Your task to perform on an android device: change your default location settings in chrome Image 0: 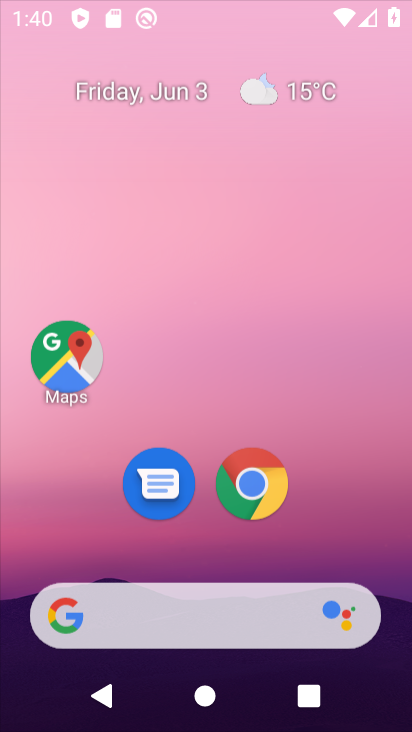
Step 0: press home button
Your task to perform on an android device: change your default location settings in chrome Image 1: 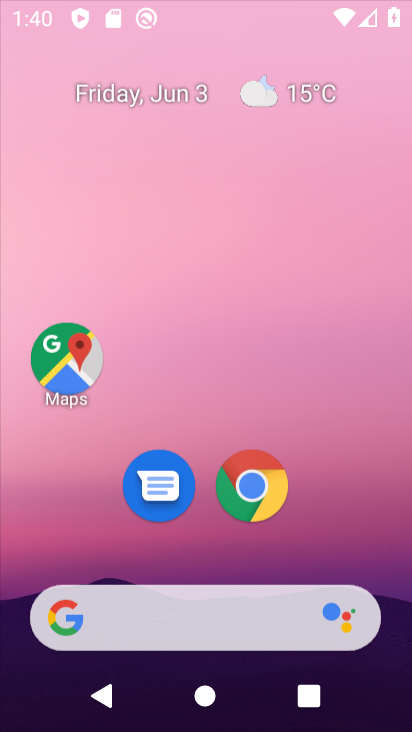
Step 1: drag from (203, 89) to (147, 55)
Your task to perform on an android device: change your default location settings in chrome Image 2: 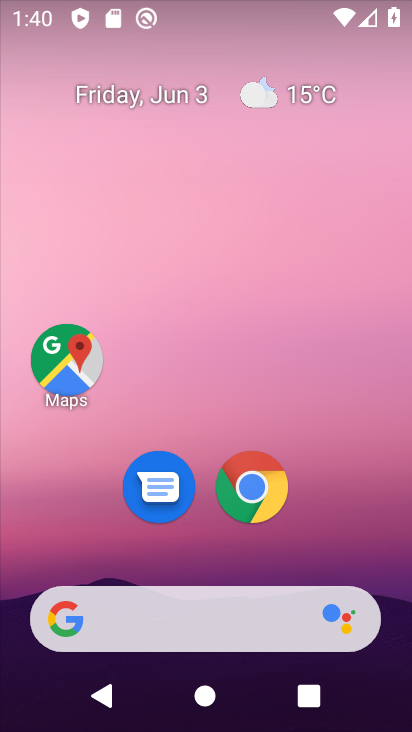
Step 2: drag from (366, 572) to (178, 10)
Your task to perform on an android device: change your default location settings in chrome Image 3: 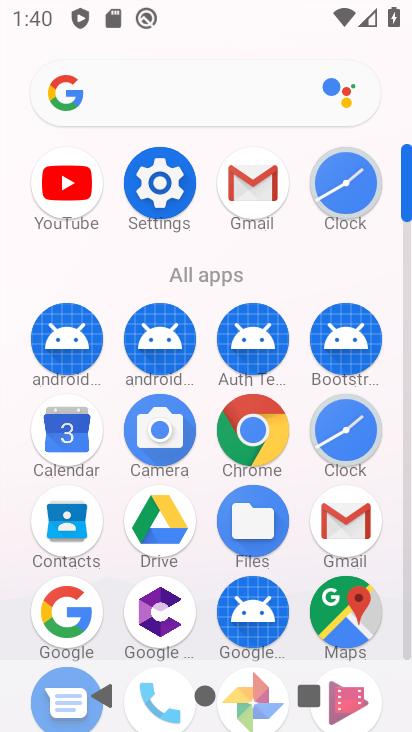
Step 3: click (258, 432)
Your task to perform on an android device: change your default location settings in chrome Image 4: 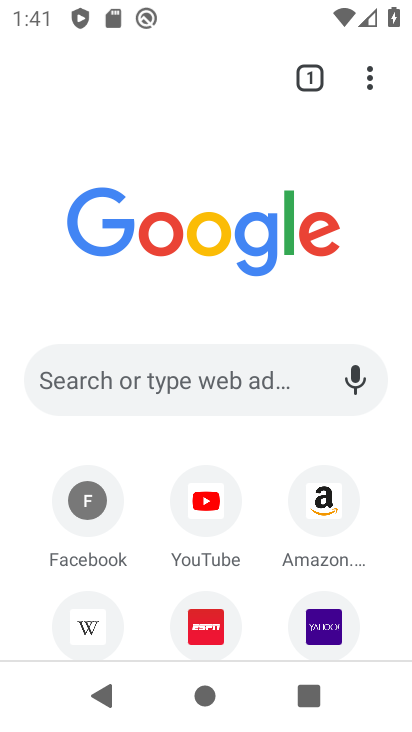
Step 4: click (379, 72)
Your task to perform on an android device: change your default location settings in chrome Image 5: 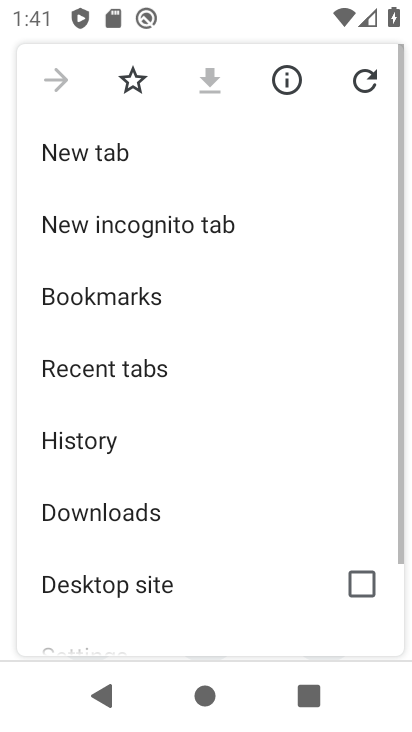
Step 5: drag from (227, 578) to (187, 22)
Your task to perform on an android device: change your default location settings in chrome Image 6: 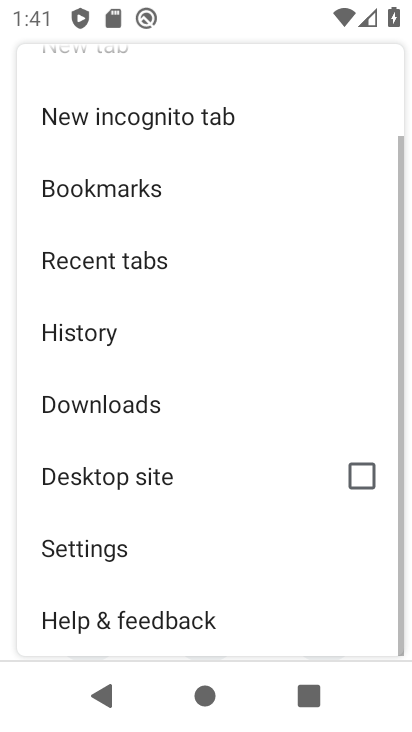
Step 6: click (118, 565)
Your task to perform on an android device: change your default location settings in chrome Image 7: 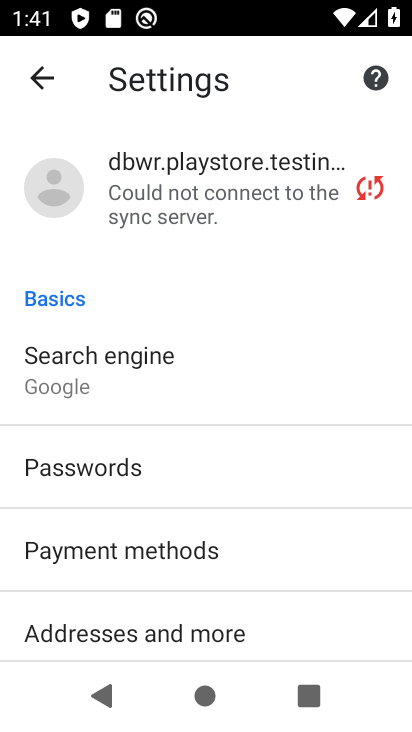
Step 7: drag from (182, 600) to (163, 51)
Your task to perform on an android device: change your default location settings in chrome Image 8: 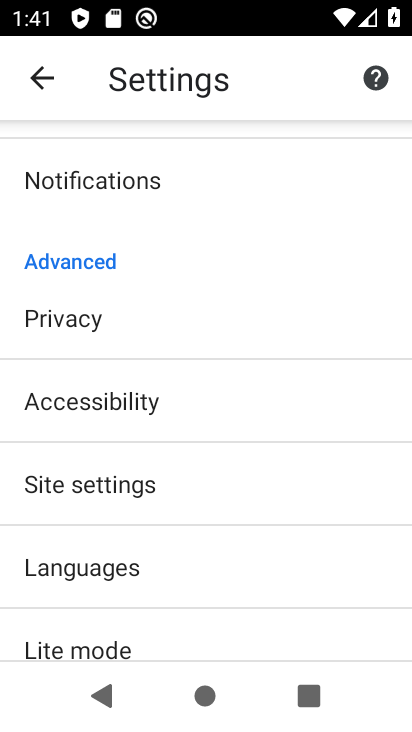
Step 8: click (149, 486)
Your task to perform on an android device: change your default location settings in chrome Image 9: 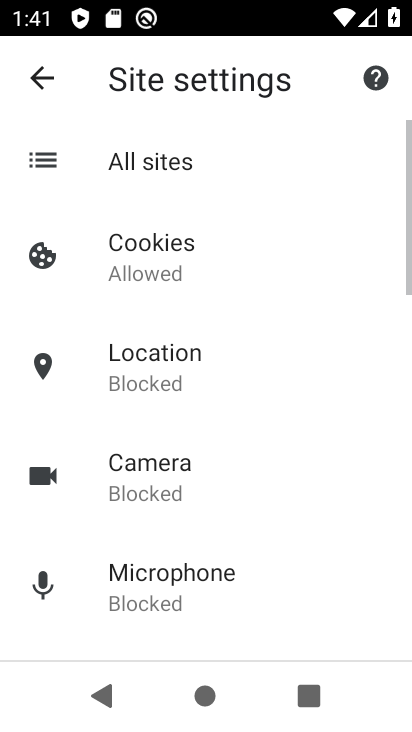
Step 9: click (205, 372)
Your task to perform on an android device: change your default location settings in chrome Image 10: 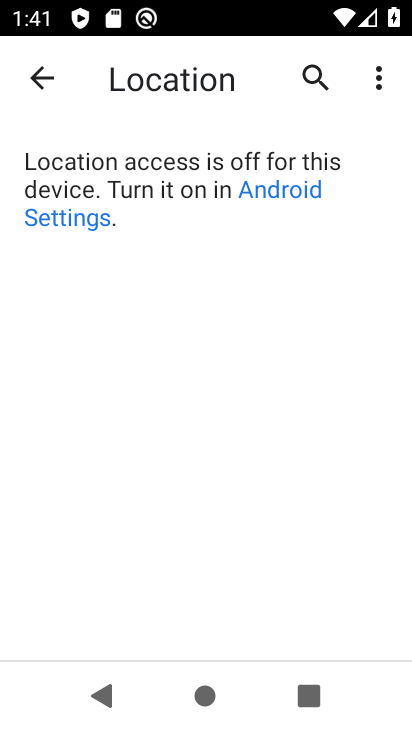
Step 10: click (272, 192)
Your task to perform on an android device: change your default location settings in chrome Image 11: 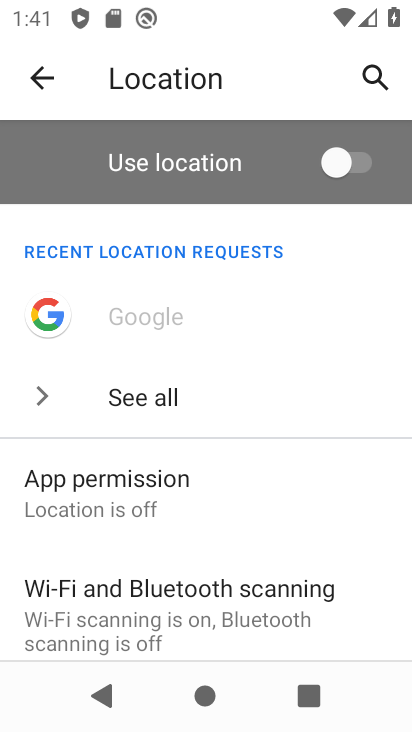
Step 11: click (359, 181)
Your task to perform on an android device: change your default location settings in chrome Image 12: 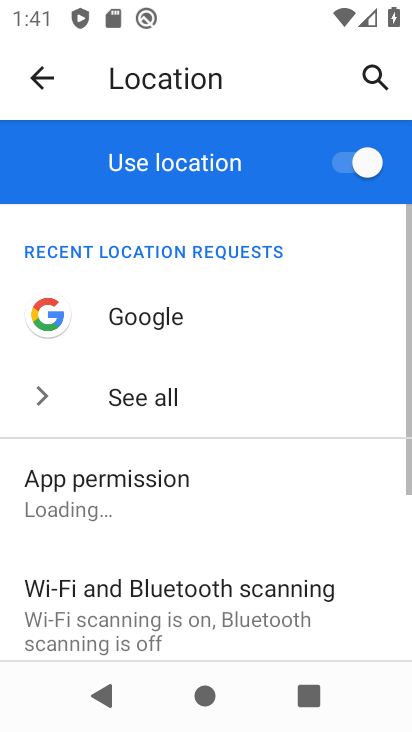
Step 12: task complete